Your task to perform on an android device: turn on priority inbox in the gmail app Image 0: 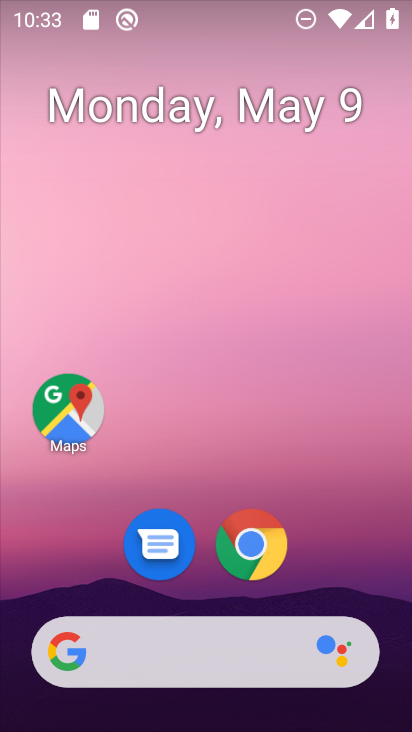
Step 0: drag from (313, 491) to (256, 43)
Your task to perform on an android device: turn on priority inbox in the gmail app Image 1: 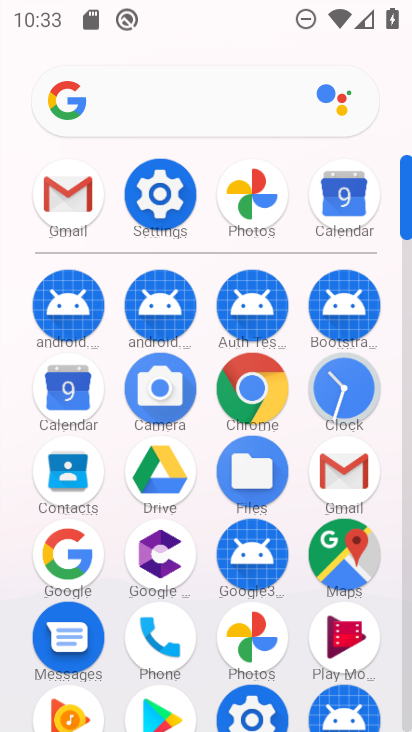
Step 1: click (74, 193)
Your task to perform on an android device: turn on priority inbox in the gmail app Image 2: 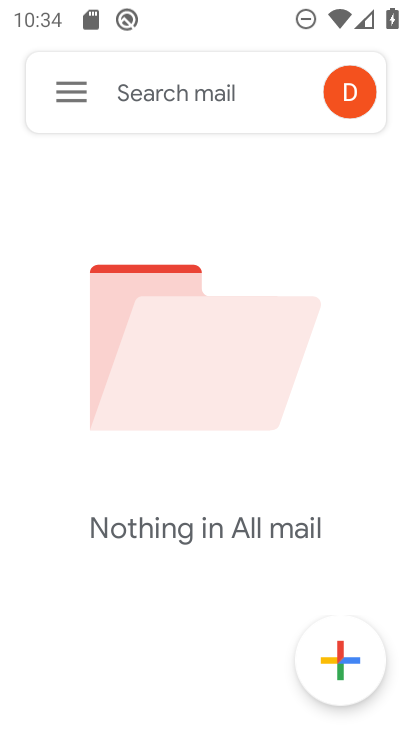
Step 2: click (69, 90)
Your task to perform on an android device: turn on priority inbox in the gmail app Image 3: 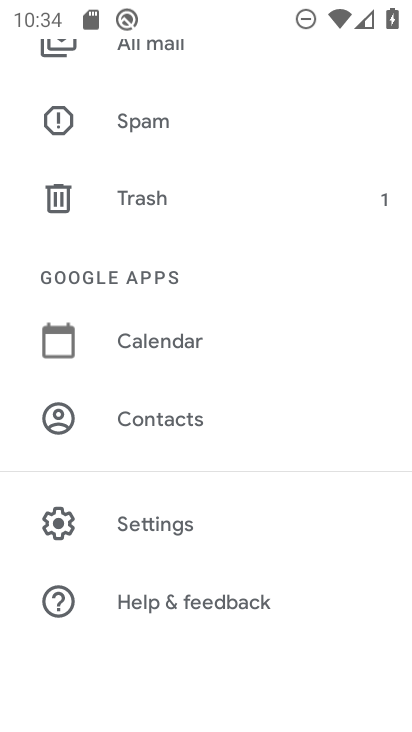
Step 3: click (164, 519)
Your task to perform on an android device: turn on priority inbox in the gmail app Image 4: 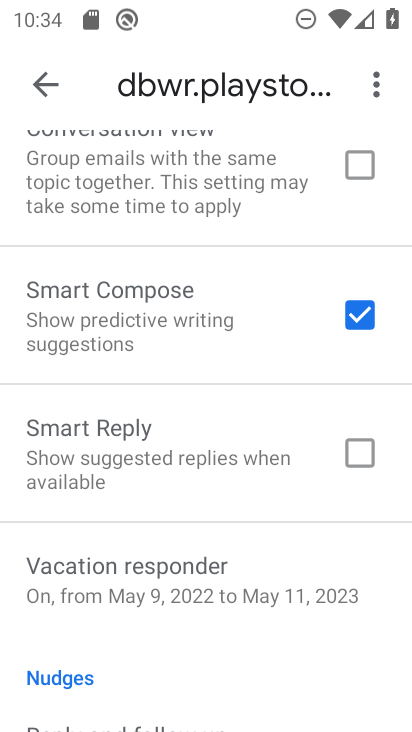
Step 4: drag from (209, 297) to (204, 694)
Your task to perform on an android device: turn on priority inbox in the gmail app Image 5: 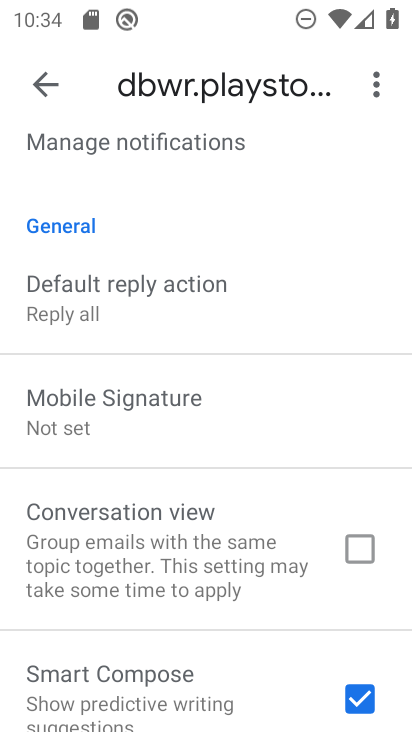
Step 5: drag from (197, 220) to (119, 725)
Your task to perform on an android device: turn on priority inbox in the gmail app Image 6: 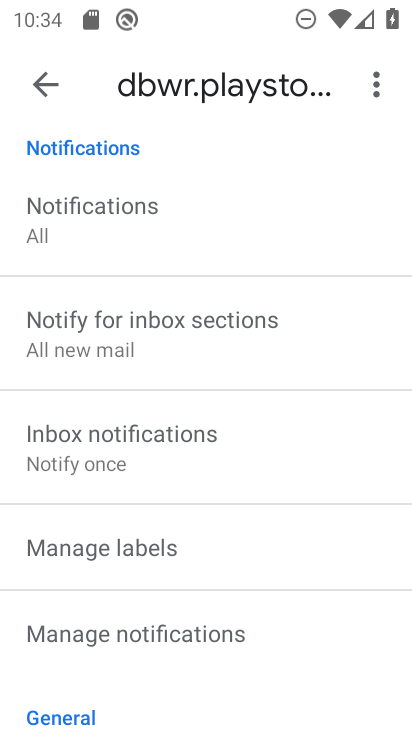
Step 6: drag from (127, 263) to (123, 716)
Your task to perform on an android device: turn on priority inbox in the gmail app Image 7: 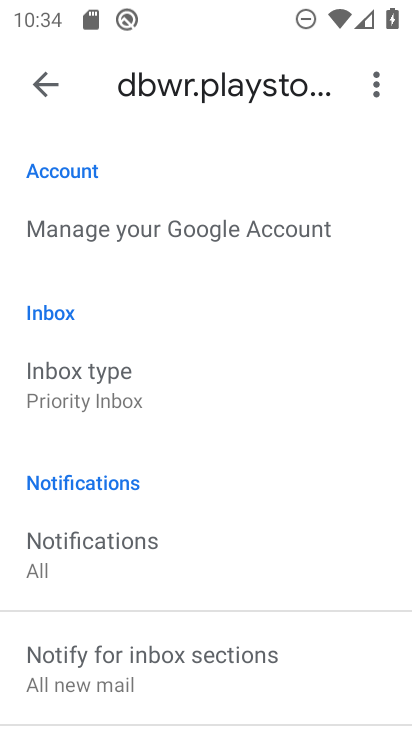
Step 7: click (76, 380)
Your task to perform on an android device: turn on priority inbox in the gmail app Image 8: 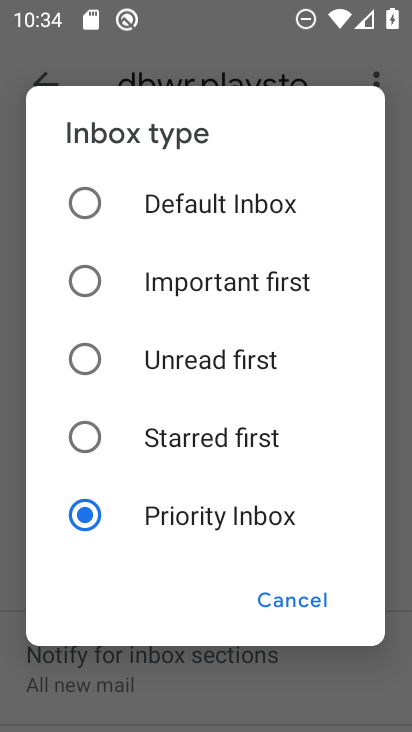
Step 8: task complete